Your task to perform on an android device: see creations saved in the google photos Image 0: 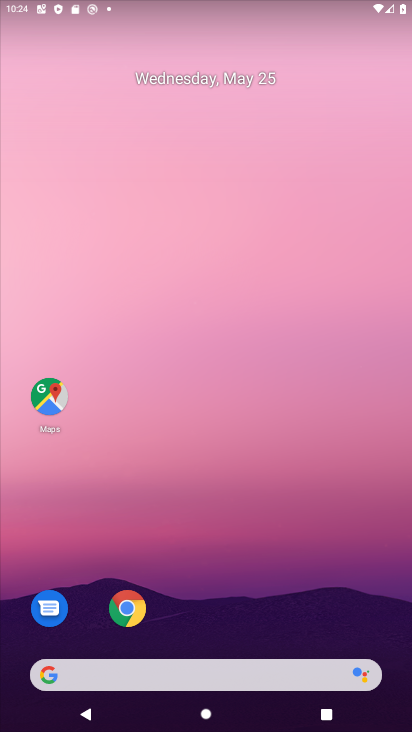
Step 0: drag from (254, 604) to (170, 0)
Your task to perform on an android device: see creations saved in the google photos Image 1: 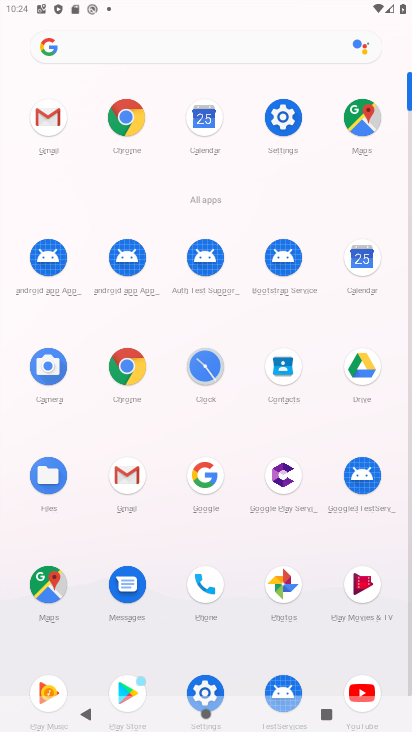
Step 1: click (283, 582)
Your task to perform on an android device: see creations saved in the google photos Image 2: 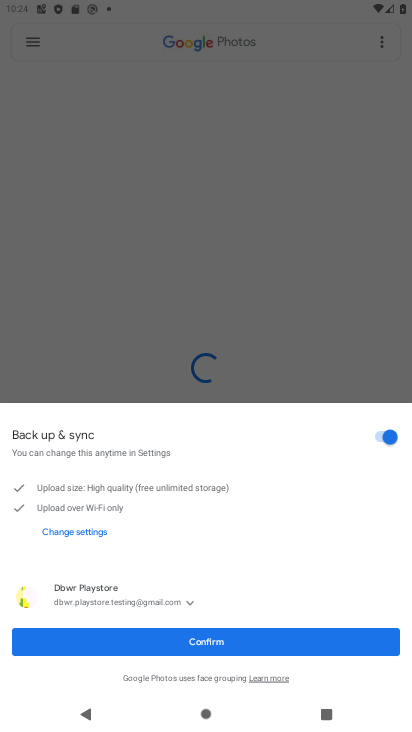
Step 2: click (220, 635)
Your task to perform on an android device: see creations saved in the google photos Image 3: 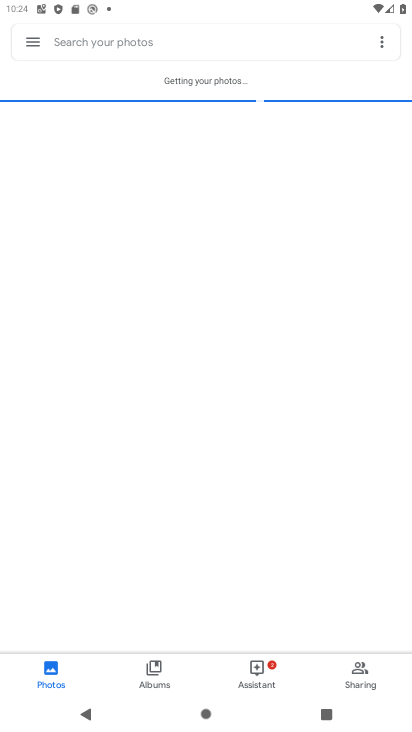
Step 3: click (253, 37)
Your task to perform on an android device: see creations saved in the google photos Image 4: 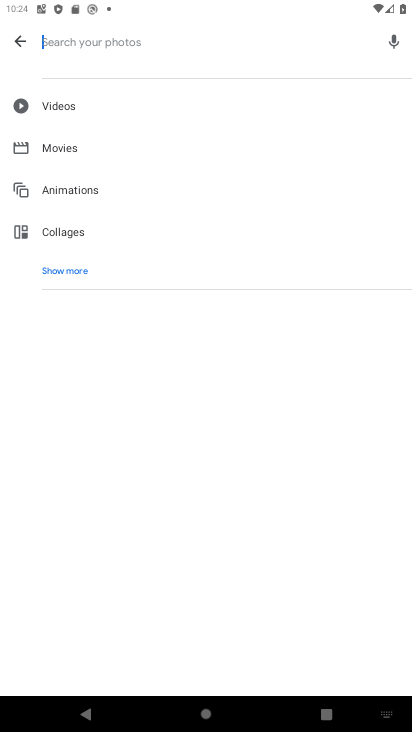
Step 4: click (61, 273)
Your task to perform on an android device: see creations saved in the google photos Image 5: 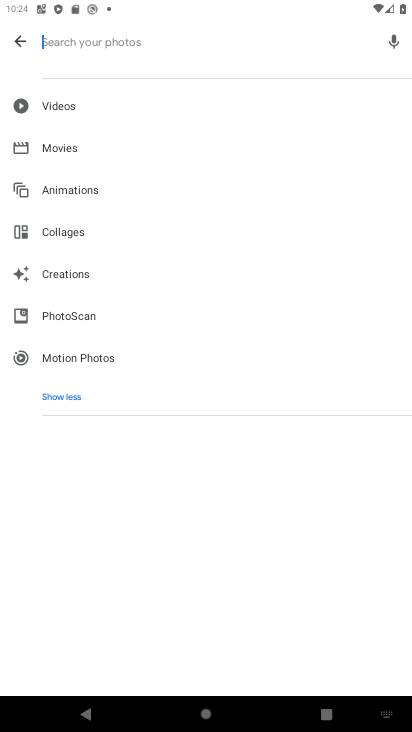
Step 5: click (67, 275)
Your task to perform on an android device: see creations saved in the google photos Image 6: 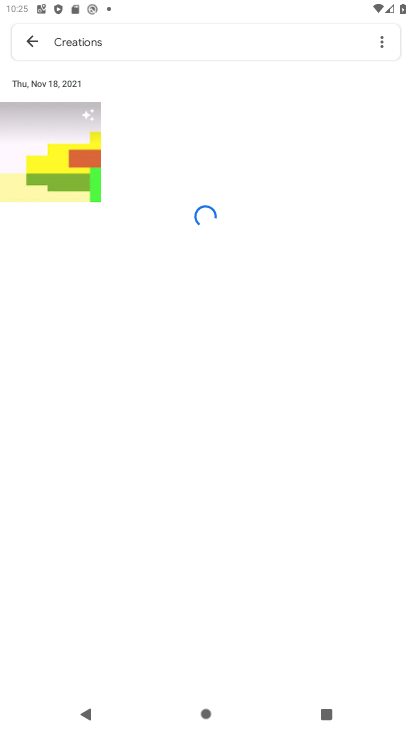
Step 6: task complete